Your task to perform on an android device: Go to ESPN.com Image 0: 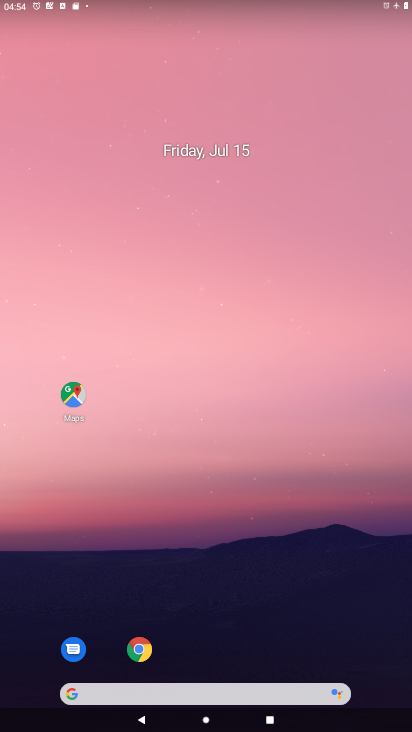
Step 0: click (141, 650)
Your task to perform on an android device: Go to ESPN.com Image 1: 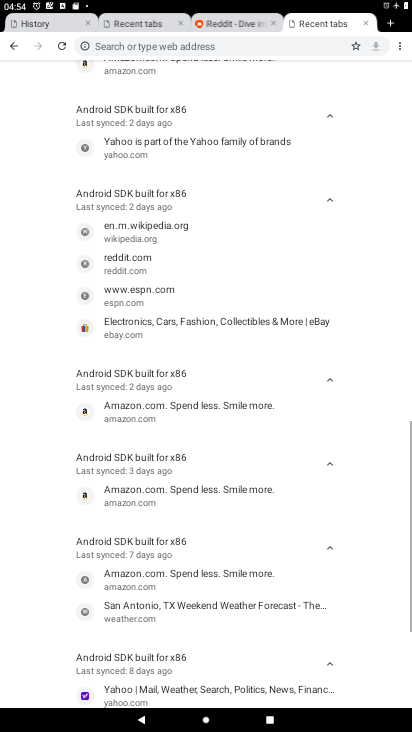
Step 1: click (237, 48)
Your task to perform on an android device: Go to ESPN.com Image 2: 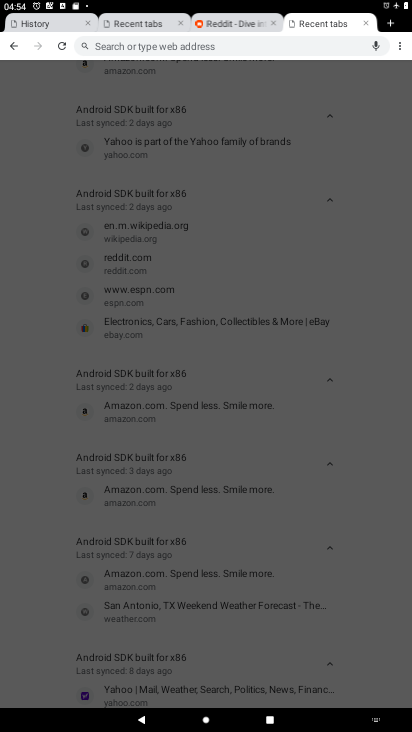
Step 2: type "ESPN.com"
Your task to perform on an android device: Go to ESPN.com Image 3: 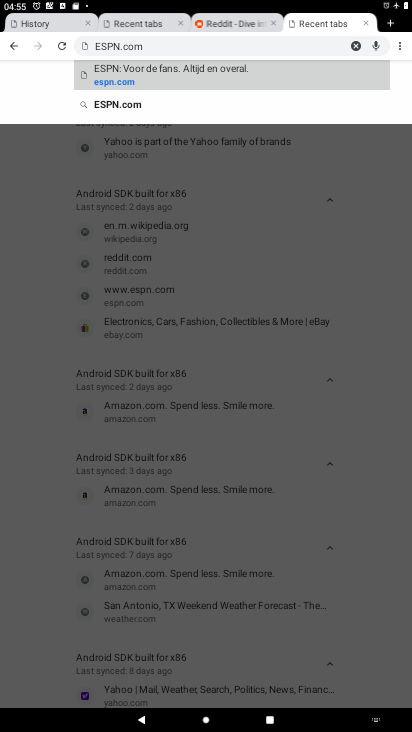
Step 3: click (123, 74)
Your task to perform on an android device: Go to ESPN.com Image 4: 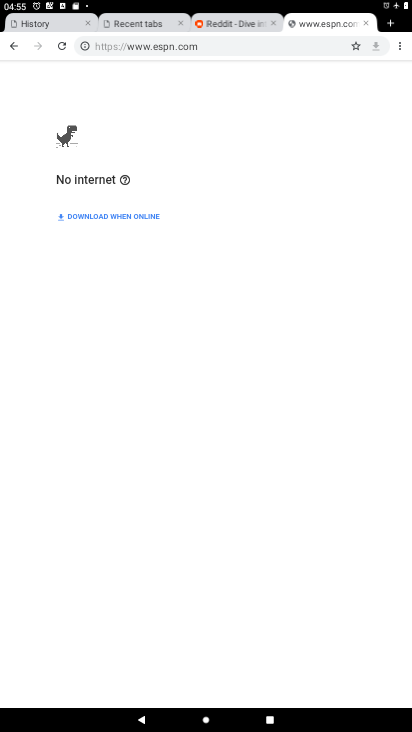
Step 4: task complete